Your task to perform on an android device: turn off notifications in google photos Image 0: 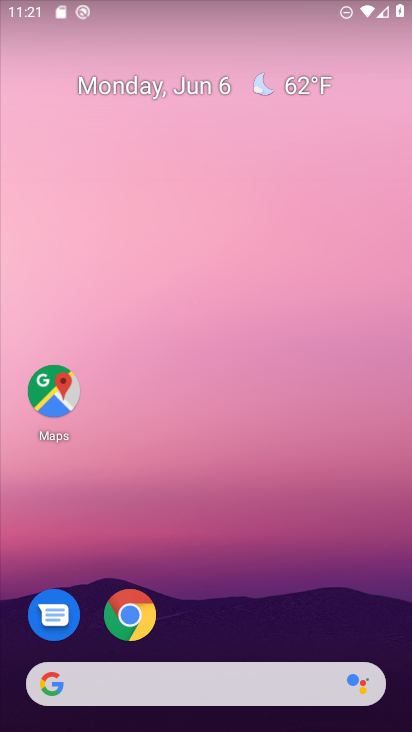
Step 0: drag from (224, 661) to (192, 63)
Your task to perform on an android device: turn off notifications in google photos Image 1: 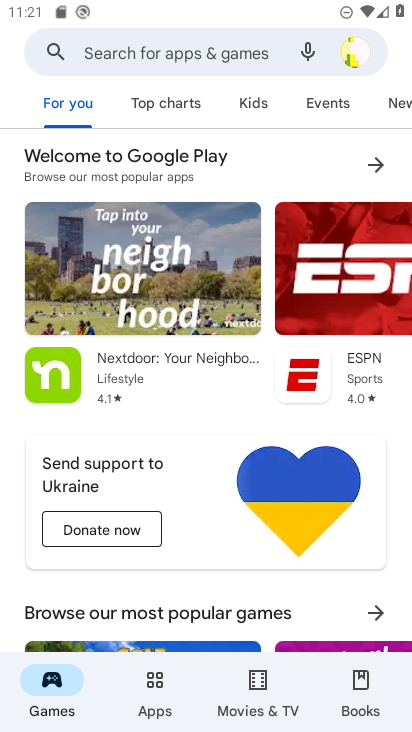
Step 1: press home button
Your task to perform on an android device: turn off notifications in google photos Image 2: 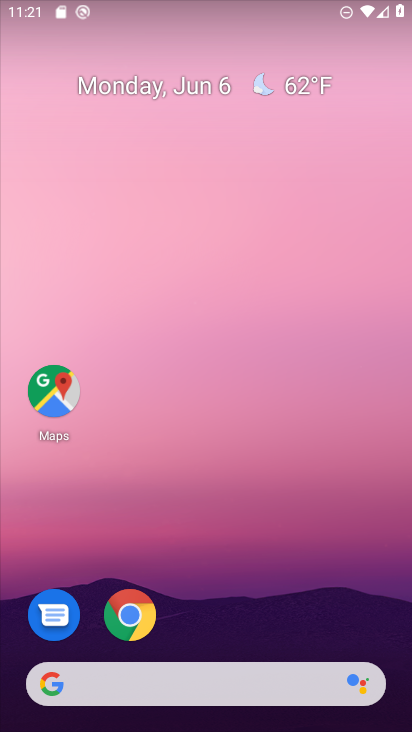
Step 2: drag from (215, 661) to (46, 9)
Your task to perform on an android device: turn off notifications in google photos Image 3: 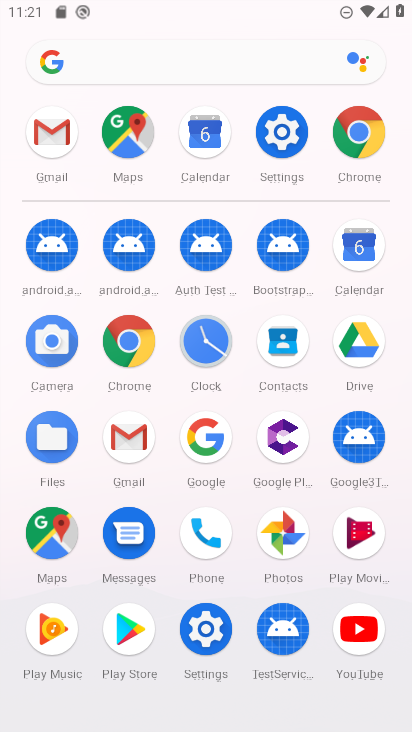
Step 3: click (267, 538)
Your task to perform on an android device: turn off notifications in google photos Image 4: 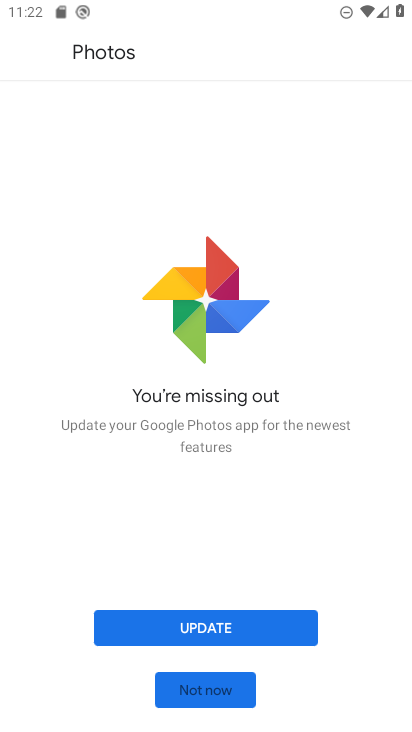
Step 4: click (214, 682)
Your task to perform on an android device: turn off notifications in google photos Image 5: 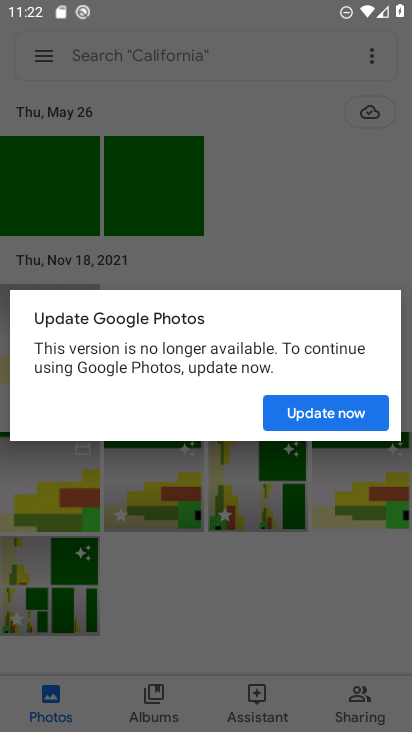
Step 5: click (355, 419)
Your task to perform on an android device: turn off notifications in google photos Image 6: 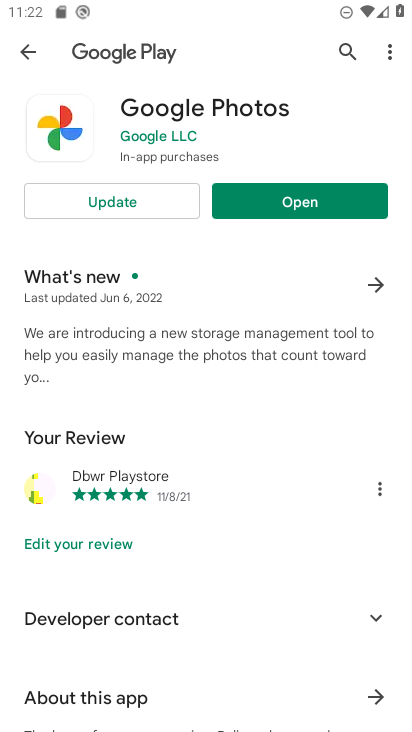
Step 6: click (144, 205)
Your task to perform on an android device: turn off notifications in google photos Image 7: 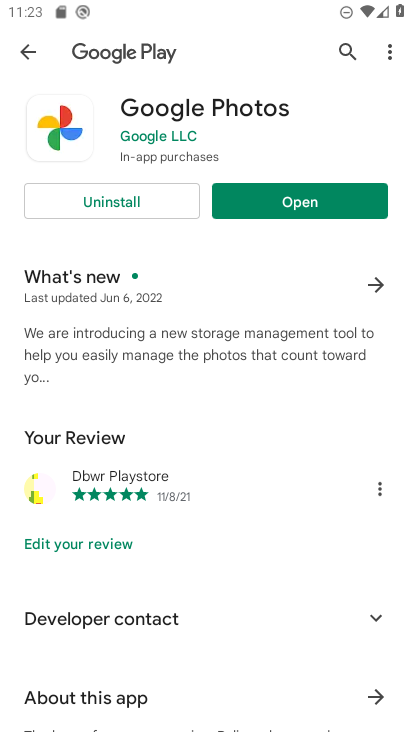
Step 7: click (326, 199)
Your task to perform on an android device: turn off notifications in google photos Image 8: 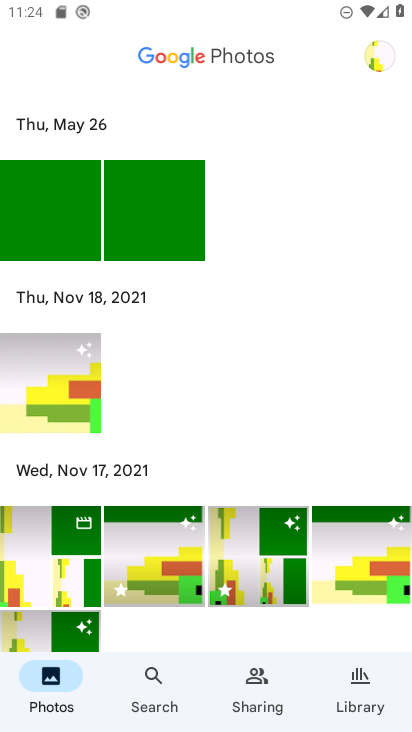
Step 8: click (371, 63)
Your task to perform on an android device: turn off notifications in google photos Image 9: 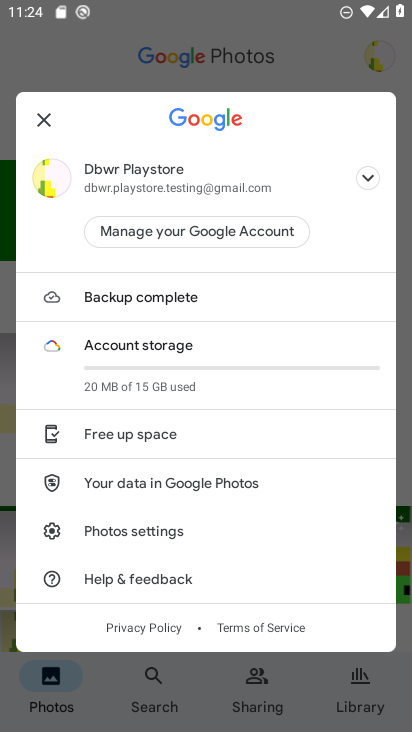
Step 9: click (127, 529)
Your task to perform on an android device: turn off notifications in google photos Image 10: 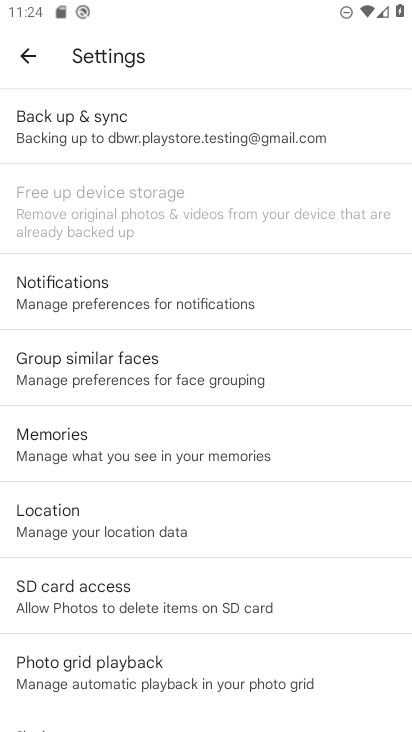
Step 10: click (95, 289)
Your task to perform on an android device: turn off notifications in google photos Image 11: 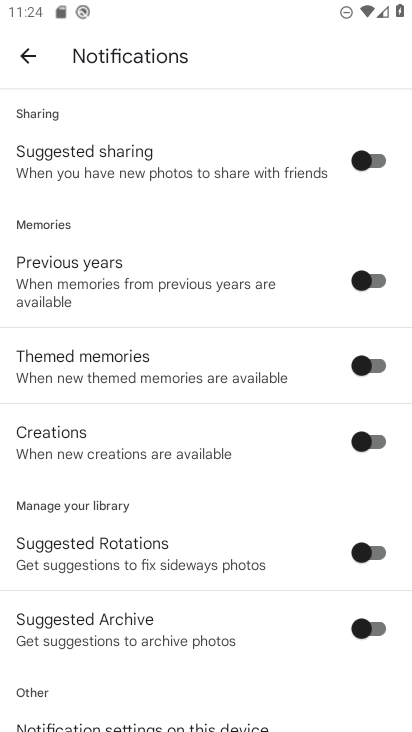
Step 11: drag from (229, 431) to (257, 6)
Your task to perform on an android device: turn off notifications in google photos Image 12: 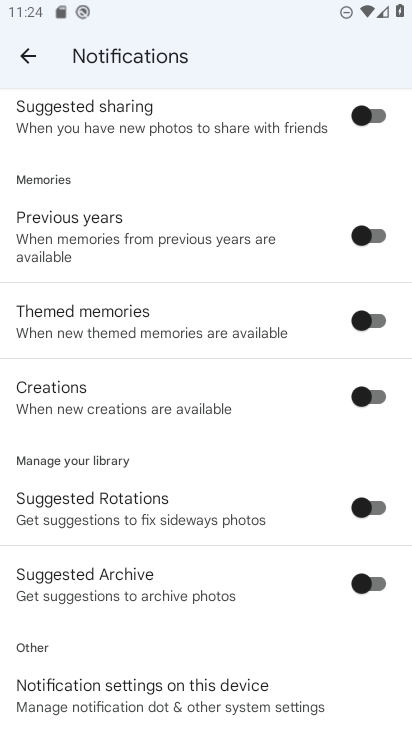
Step 12: click (210, 691)
Your task to perform on an android device: turn off notifications in google photos Image 13: 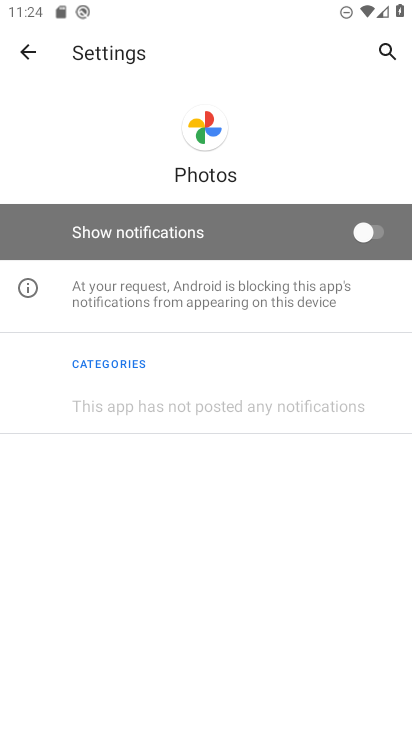
Step 13: task complete